Your task to perform on an android device: turn pop-ups on in chrome Image 0: 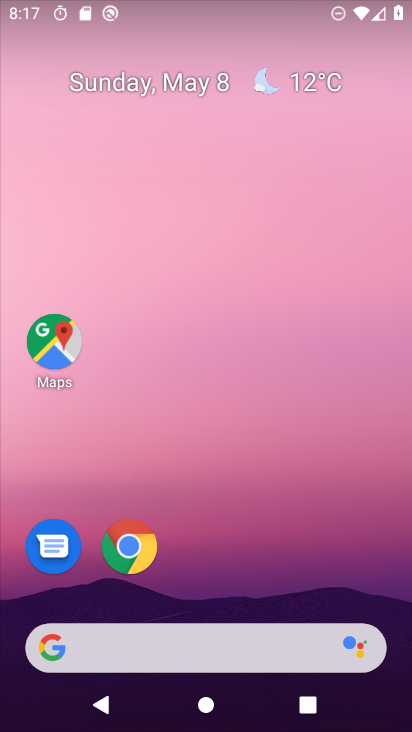
Step 0: drag from (266, 543) to (294, 0)
Your task to perform on an android device: turn pop-ups on in chrome Image 1: 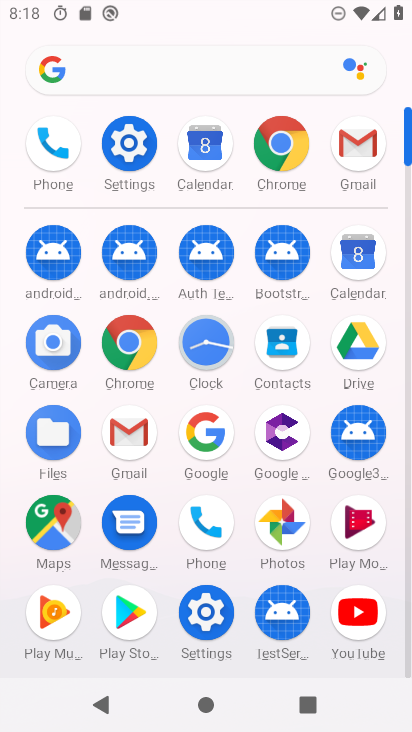
Step 1: click (280, 136)
Your task to perform on an android device: turn pop-ups on in chrome Image 2: 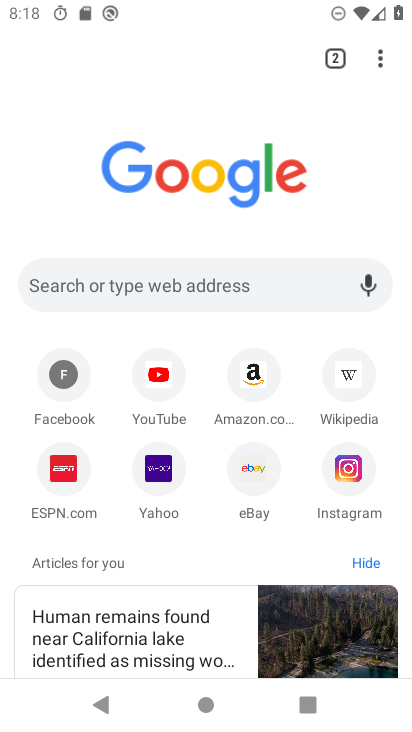
Step 2: click (377, 60)
Your task to perform on an android device: turn pop-ups on in chrome Image 3: 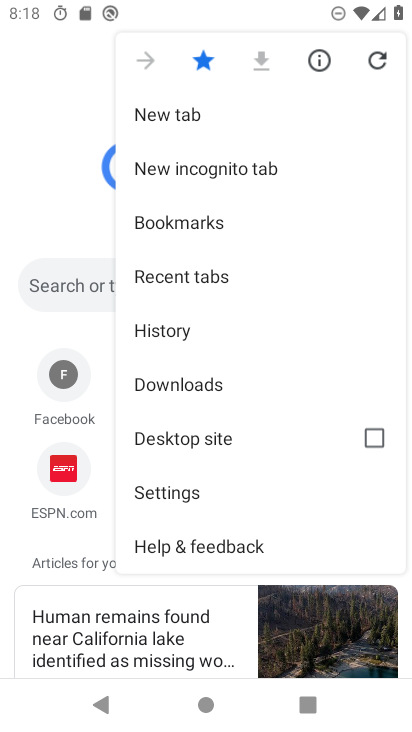
Step 3: click (233, 499)
Your task to perform on an android device: turn pop-ups on in chrome Image 4: 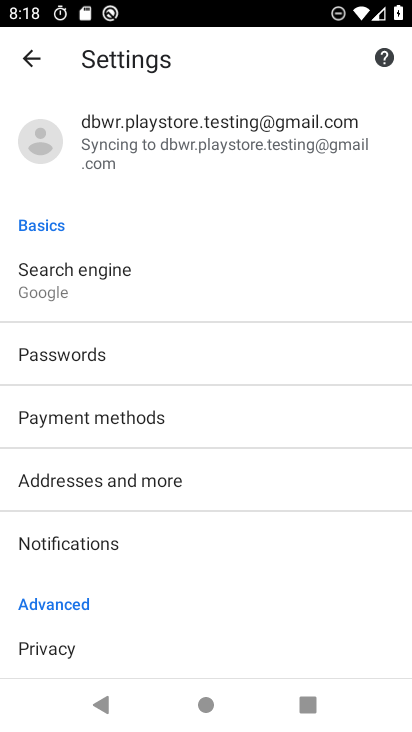
Step 4: drag from (195, 557) to (324, 219)
Your task to perform on an android device: turn pop-ups on in chrome Image 5: 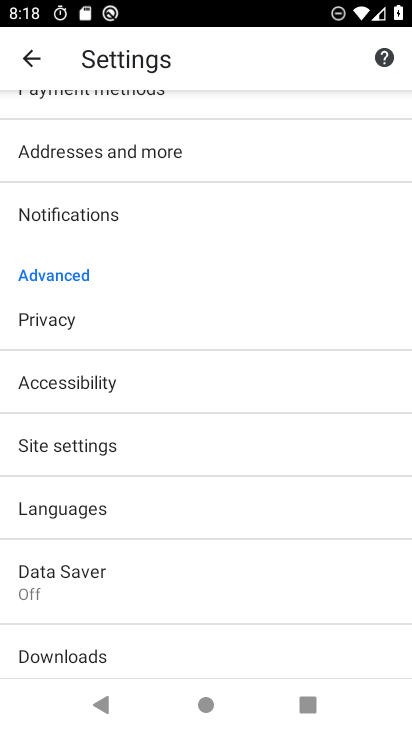
Step 5: click (187, 438)
Your task to perform on an android device: turn pop-ups on in chrome Image 6: 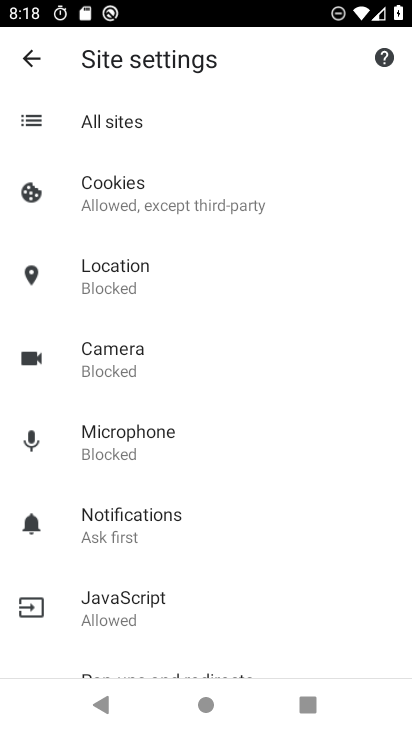
Step 6: drag from (245, 514) to (298, 206)
Your task to perform on an android device: turn pop-ups on in chrome Image 7: 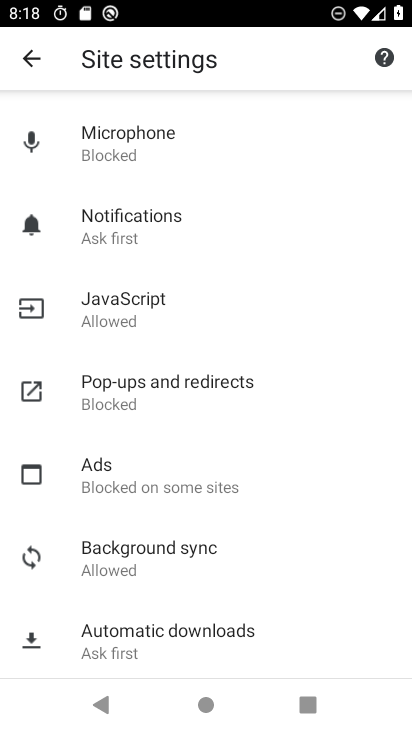
Step 7: click (185, 390)
Your task to perform on an android device: turn pop-ups on in chrome Image 8: 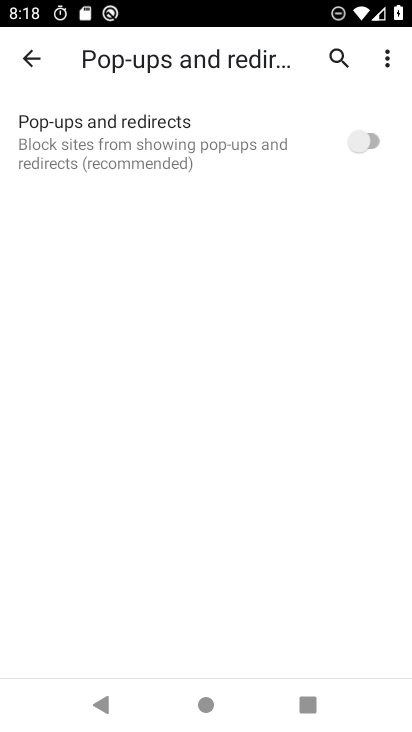
Step 8: click (371, 133)
Your task to perform on an android device: turn pop-ups on in chrome Image 9: 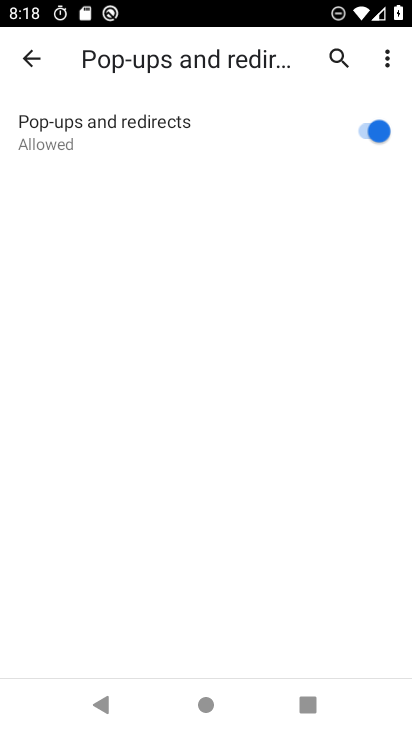
Step 9: task complete